Your task to perform on an android device: allow notifications from all sites in the chrome app Image 0: 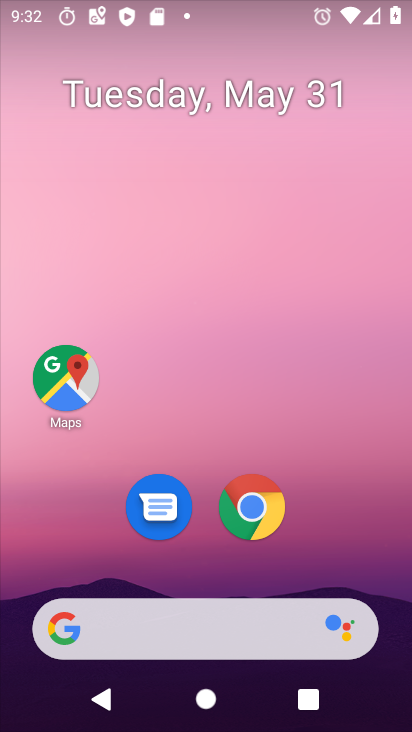
Step 0: click (259, 514)
Your task to perform on an android device: allow notifications from all sites in the chrome app Image 1: 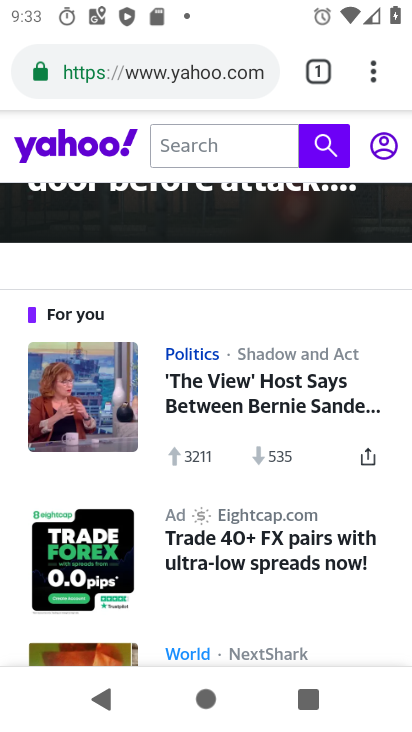
Step 1: click (376, 76)
Your task to perform on an android device: allow notifications from all sites in the chrome app Image 2: 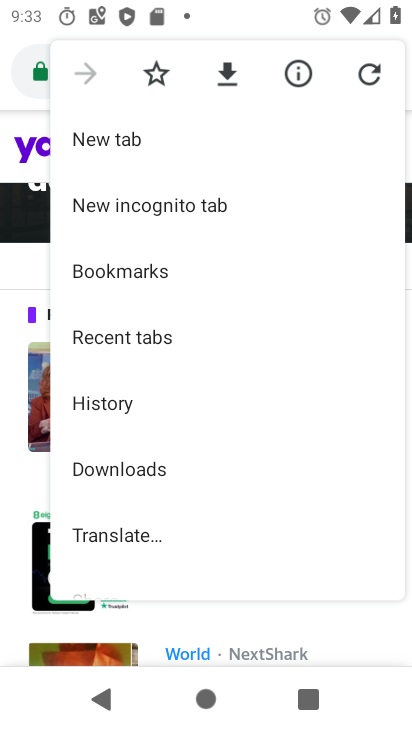
Step 2: drag from (212, 497) to (226, 234)
Your task to perform on an android device: allow notifications from all sites in the chrome app Image 3: 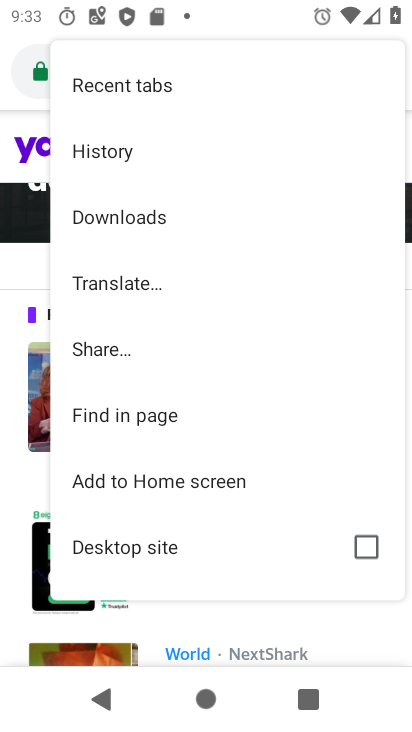
Step 3: drag from (251, 500) to (250, 134)
Your task to perform on an android device: allow notifications from all sites in the chrome app Image 4: 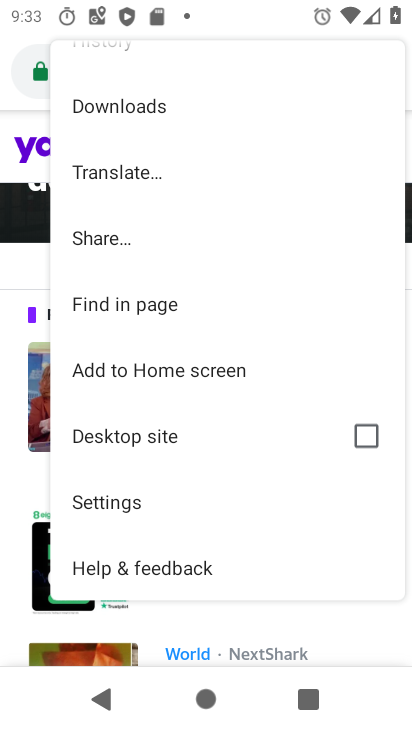
Step 4: click (112, 501)
Your task to perform on an android device: allow notifications from all sites in the chrome app Image 5: 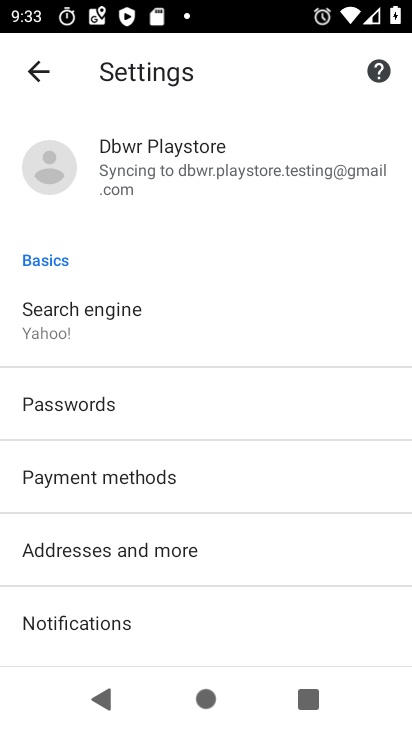
Step 5: drag from (234, 503) to (241, 183)
Your task to perform on an android device: allow notifications from all sites in the chrome app Image 6: 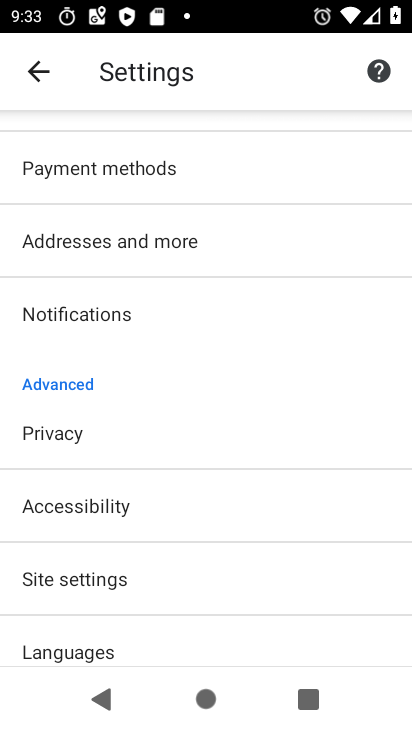
Step 6: click (85, 317)
Your task to perform on an android device: allow notifications from all sites in the chrome app Image 7: 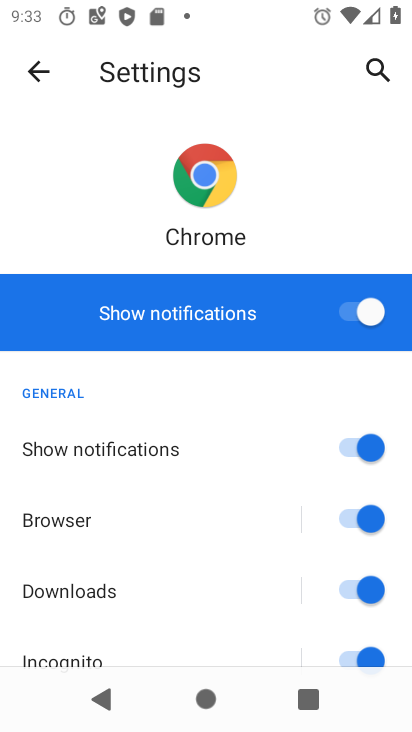
Step 7: task complete